Your task to perform on an android device: Open Google Chrome and open the bookmarks view Image 0: 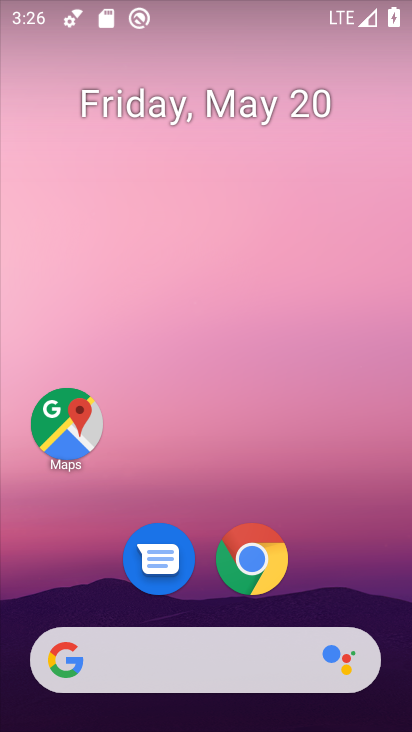
Step 0: click (267, 564)
Your task to perform on an android device: Open Google Chrome and open the bookmarks view Image 1: 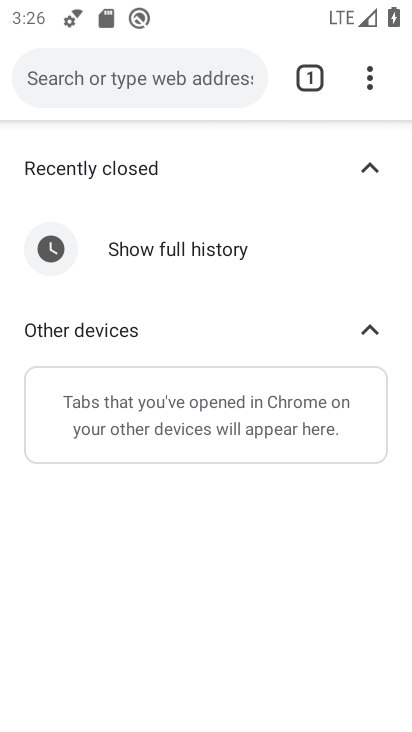
Step 1: click (371, 83)
Your task to perform on an android device: Open Google Chrome and open the bookmarks view Image 2: 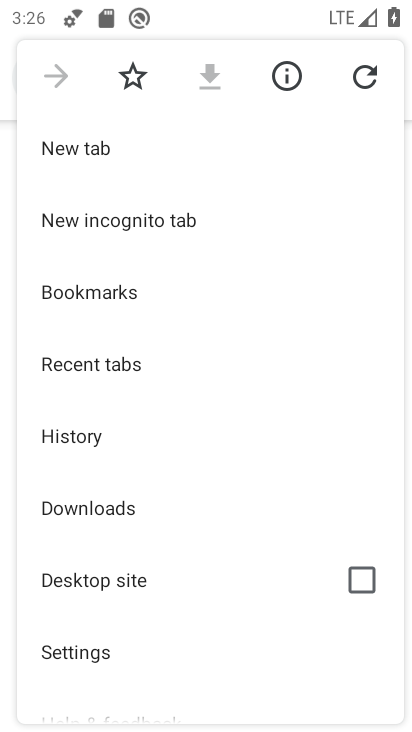
Step 2: click (141, 291)
Your task to perform on an android device: Open Google Chrome and open the bookmarks view Image 3: 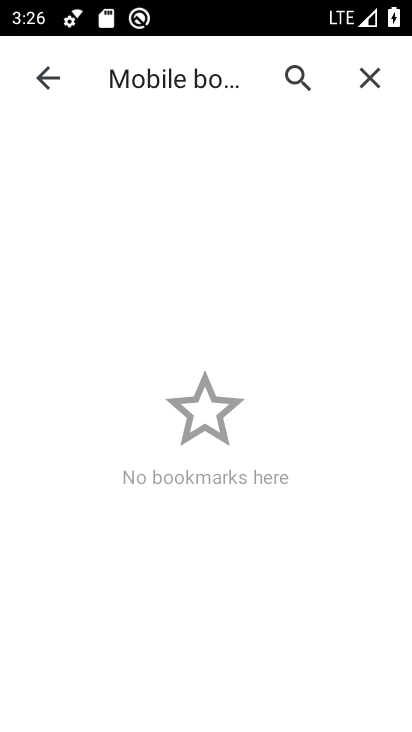
Step 3: task complete